Your task to perform on an android device: toggle data saver in the chrome app Image 0: 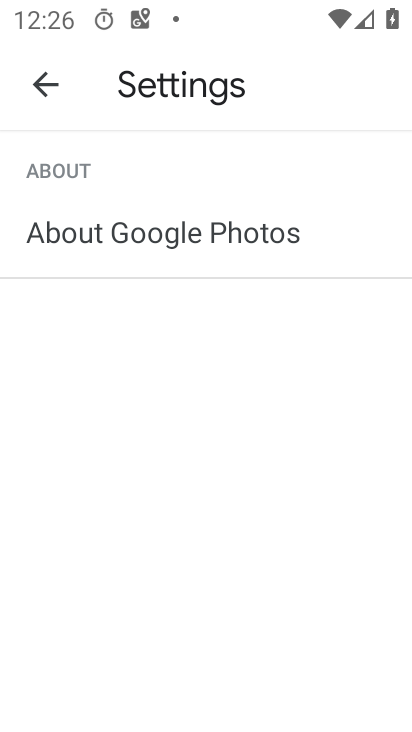
Step 0: press home button
Your task to perform on an android device: toggle data saver in the chrome app Image 1: 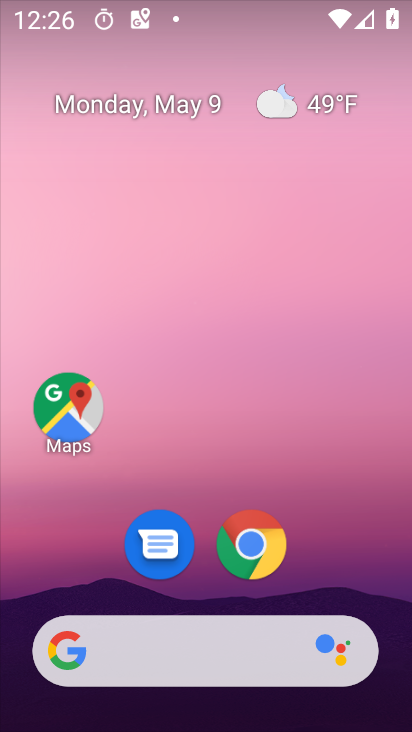
Step 1: drag from (309, 588) to (384, 24)
Your task to perform on an android device: toggle data saver in the chrome app Image 2: 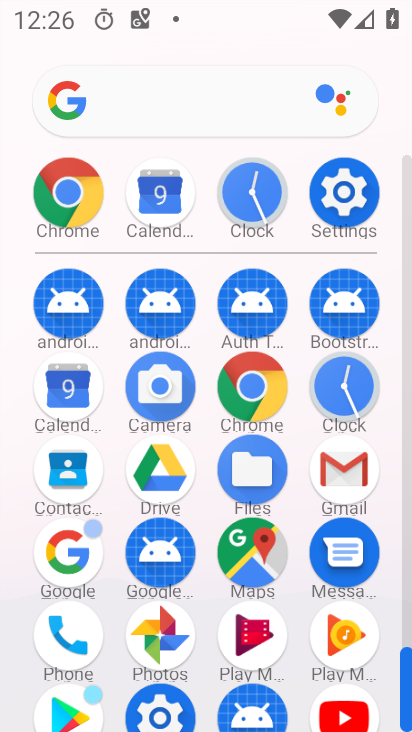
Step 2: click (256, 387)
Your task to perform on an android device: toggle data saver in the chrome app Image 3: 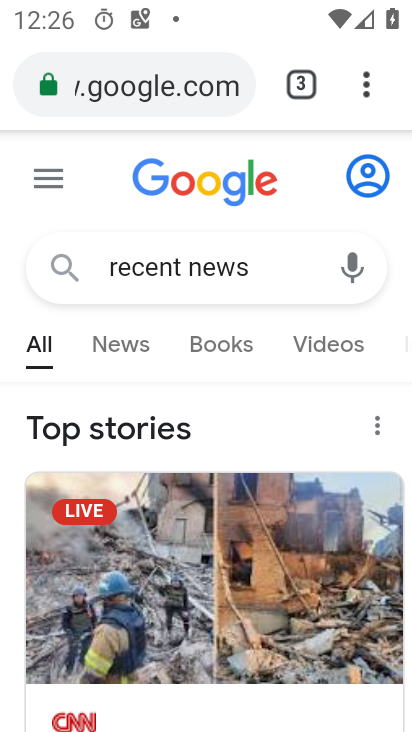
Step 3: drag from (359, 70) to (275, 291)
Your task to perform on an android device: toggle data saver in the chrome app Image 4: 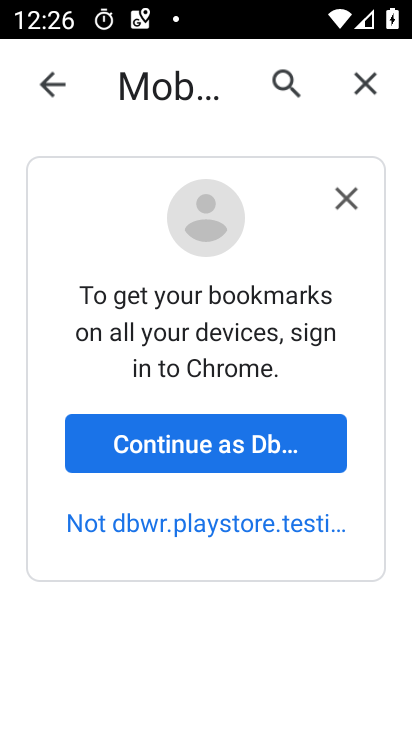
Step 4: press back button
Your task to perform on an android device: toggle data saver in the chrome app Image 5: 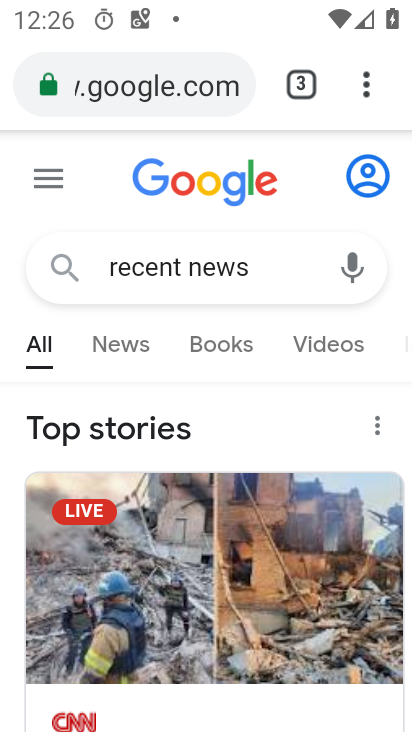
Step 5: drag from (364, 78) to (124, 610)
Your task to perform on an android device: toggle data saver in the chrome app Image 6: 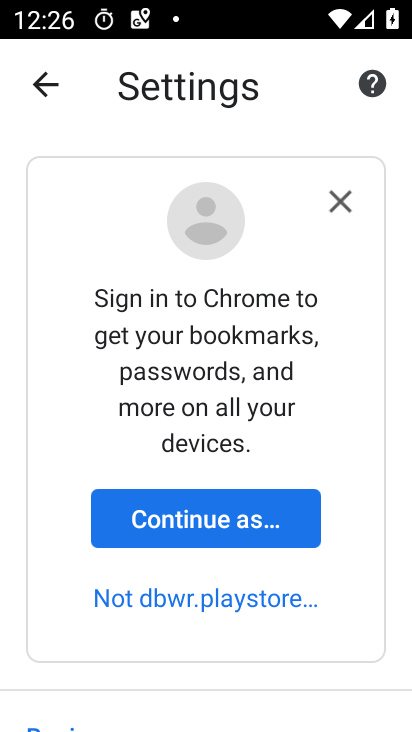
Step 6: drag from (91, 666) to (196, 102)
Your task to perform on an android device: toggle data saver in the chrome app Image 7: 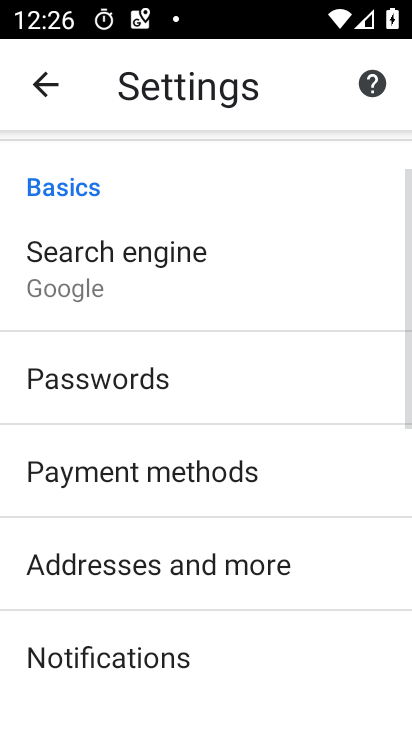
Step 7: drag from (214, 633) to (244, 206)
Your task to perform on an android device: toggle data saver in the chrome app Image 8: 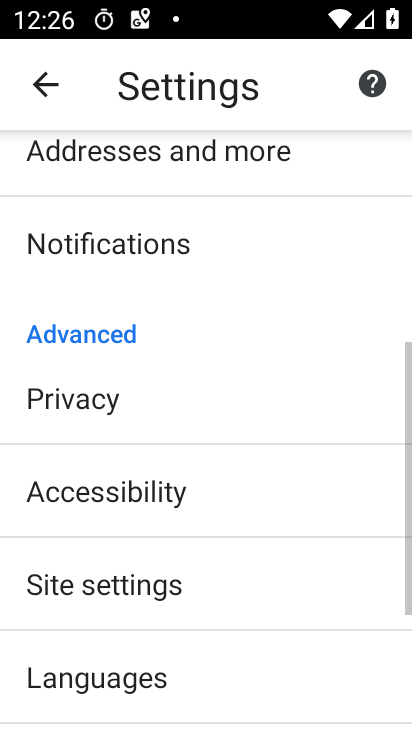
Step 8: drag from (248, 560) to (267, 406)
Your task to perform on an android device: toggle data saver in the chrome app Image 9: 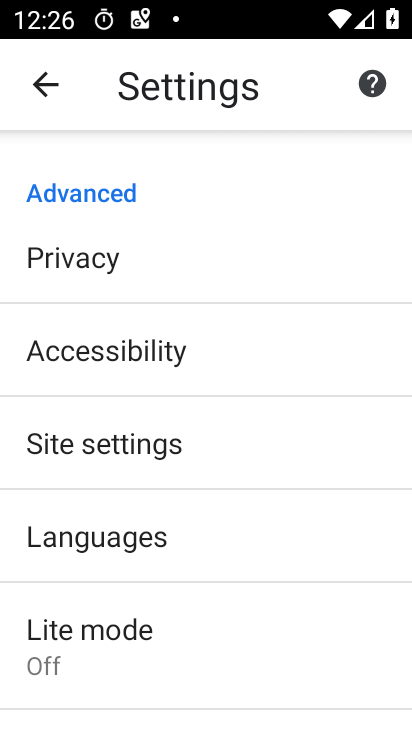
Step 9: click (135, 622)
Your task to perform on an android device: toggle data saver in the chrome app Image 10: 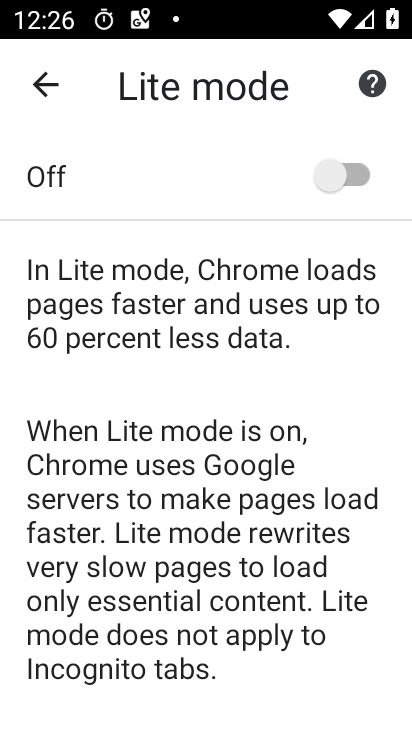
Step 10: click (363, 169)
Your task to perform on an android device: toggle data saver in the chrome app Image 11: 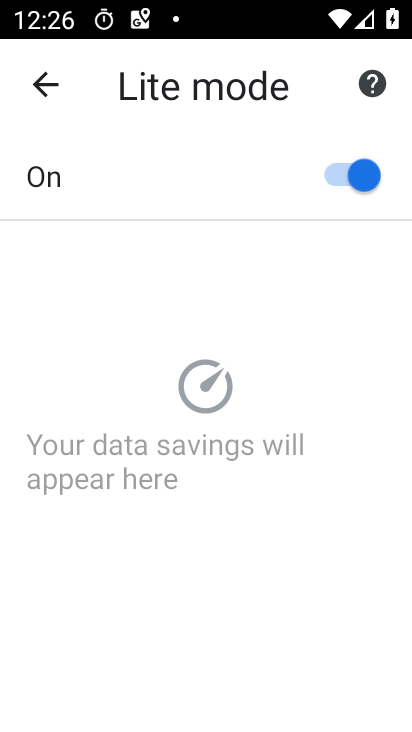
Step 11: task complete